Your task to perform on an android device: What's the weather today? Image 0: 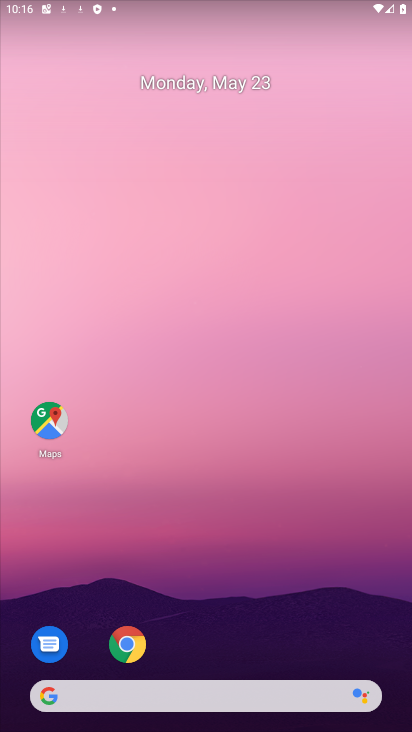
Step 0: drag from (270, 679) to (219, 161)
Your task to perform on an android device: What's the weather today? Image 1: 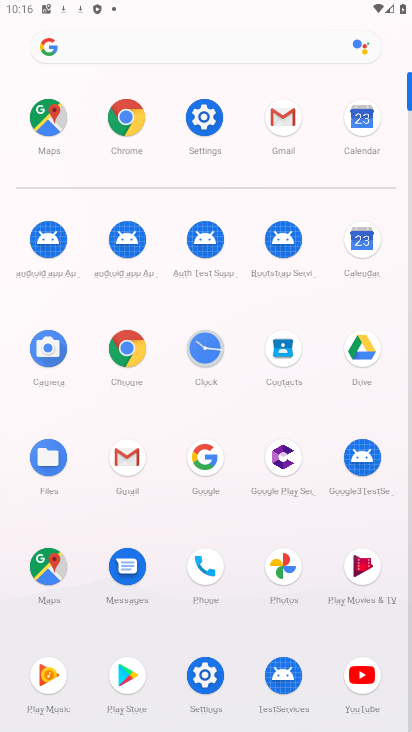
Step 1: click (101, 58)
Your task to perform on an android device: What's the weather today? Image 2: 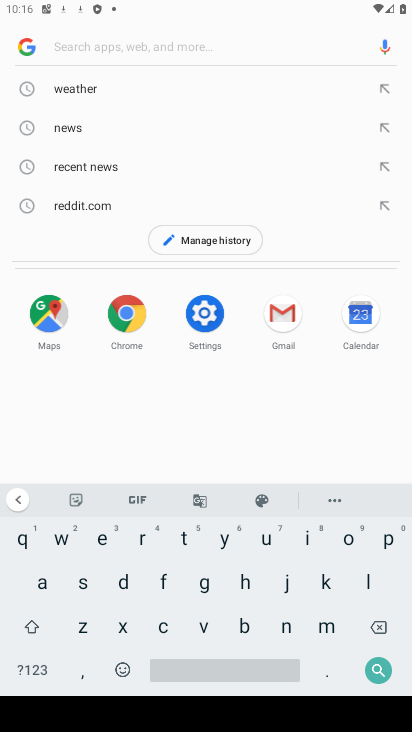
Step 2: click (103, 90)
Your task to perform on an android device: What's the weather today? Image 3: 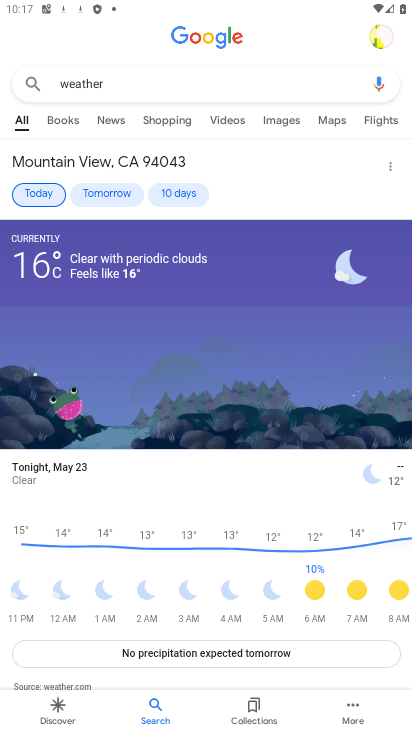
Step 3: task complete